Your task to perform on an android device: Go to network settings Image 0: 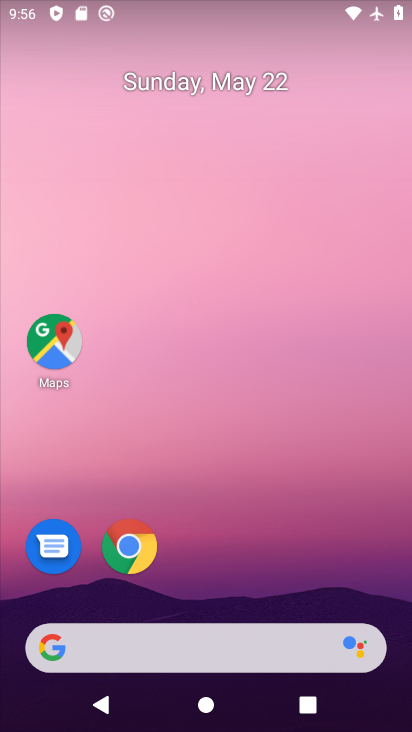
Step 0: drag from (247, 477) to (240, 35)
Your task to perform on an android device: Go to network settings Image 1: 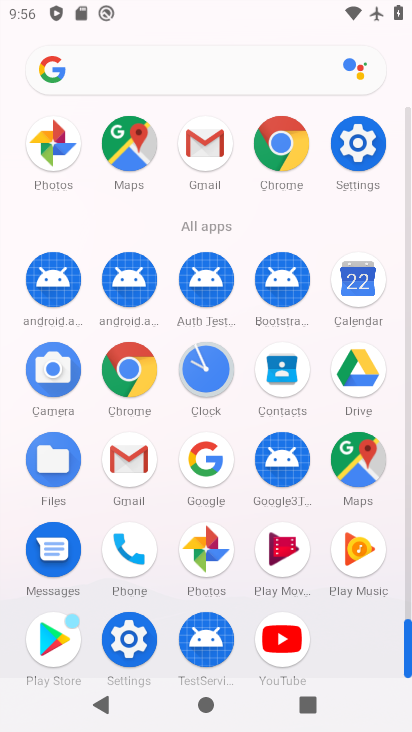
Step 1: click (130, 639)
Your task to perform on an android device: Go to network settings Image 2: 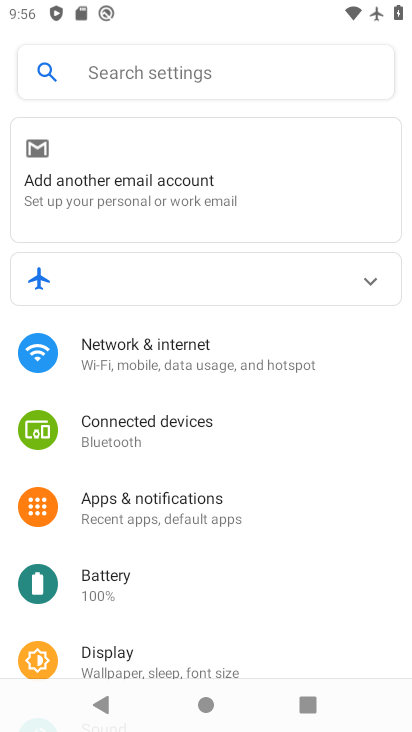
Step 2: click (210, 350)
Your task to perform on an android device: Go to network settings Image 3: 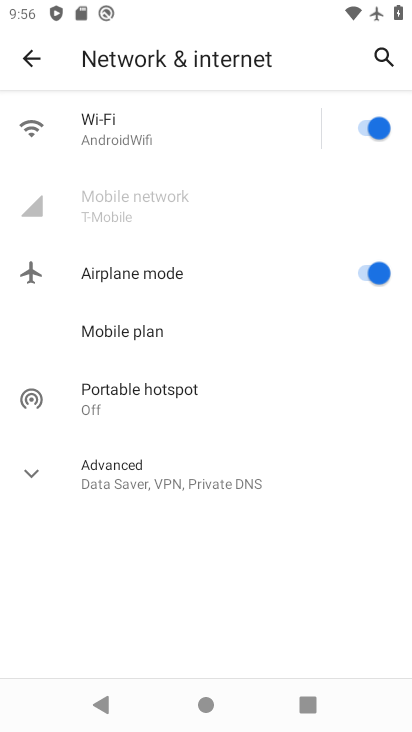
Step 3: click (17, 482)
Your task to perform on an android device: Go to network settings Image 4: 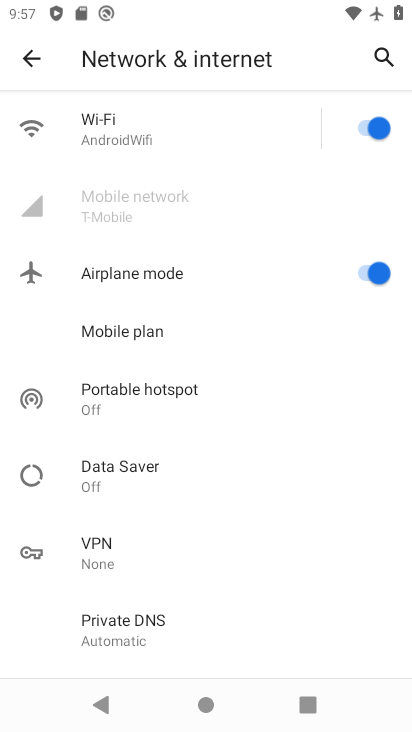
Step 4: task complete